Your task to perform on an android device: Open settings Image 0: 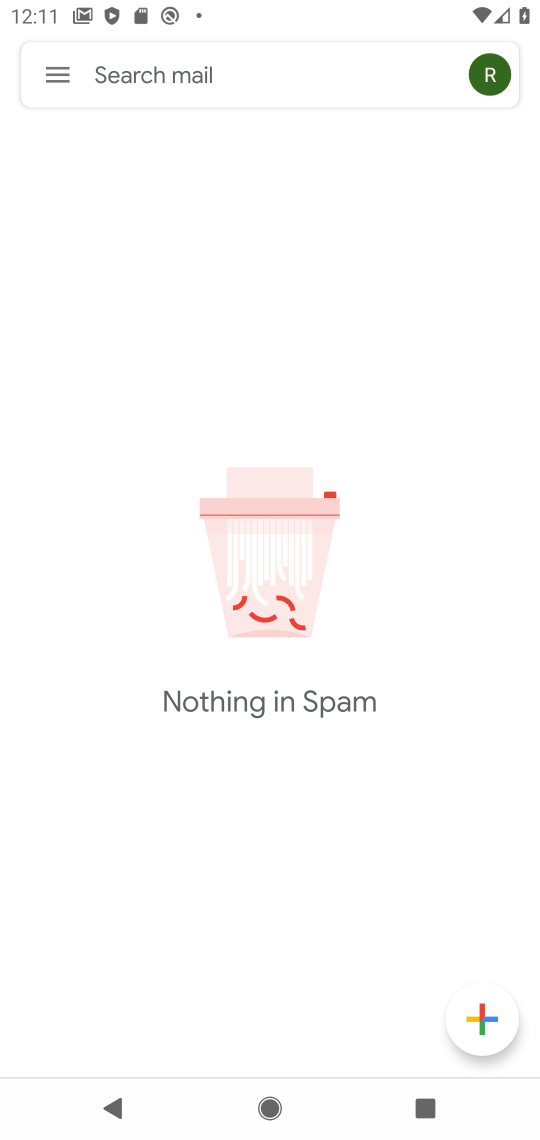
Step 0: press home button
Your task to perform on an android device: Open settings Image 1: 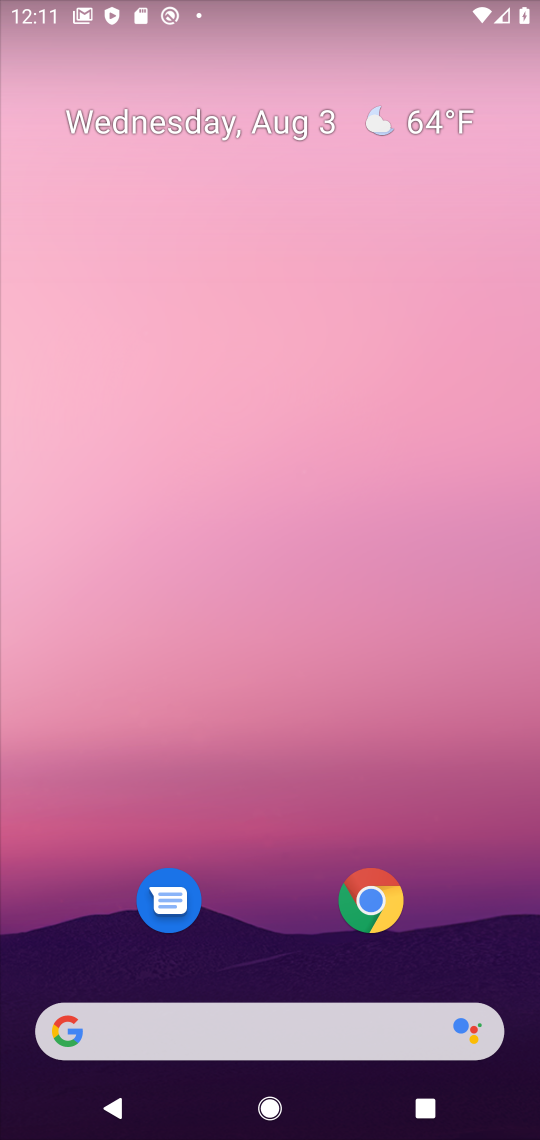
Step 1: drag from (367, 341) to (32, 21)
Your task to perform on an android device: Open settings Image 2: 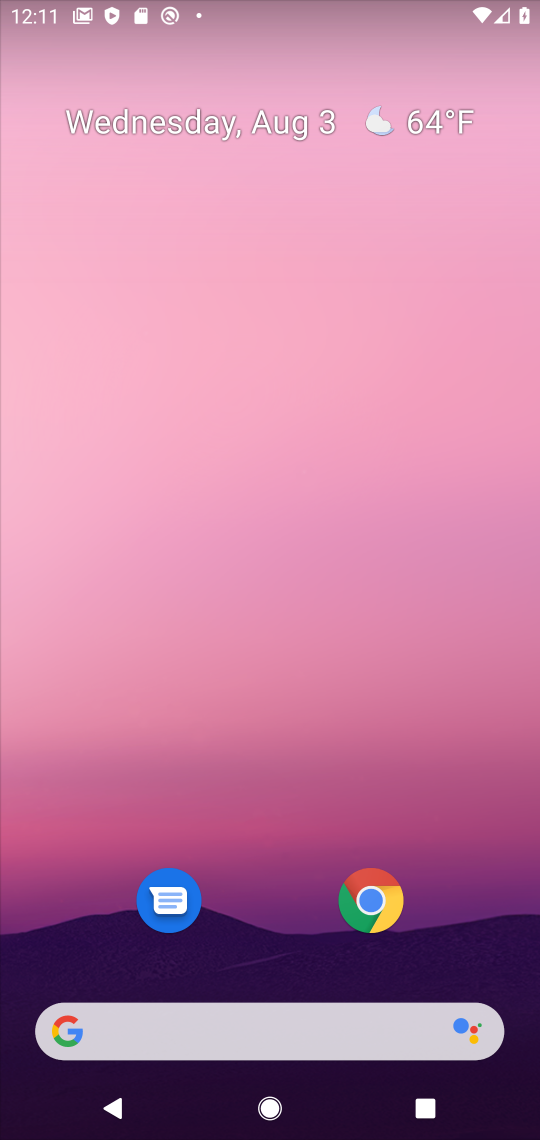
Step 2: drag from (322, 473) to (350, 36)
Your task to perform on an android device: Open settings Image 3: 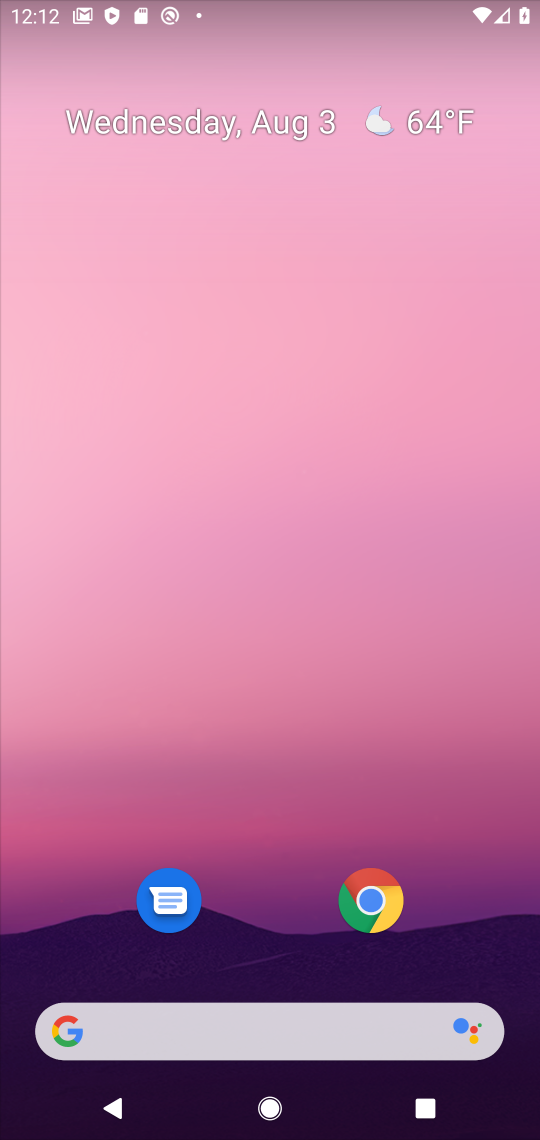
Step 3: drag from (287, 661) to (324, 10)
Your task to perform on an android device: Open settings Image 4: 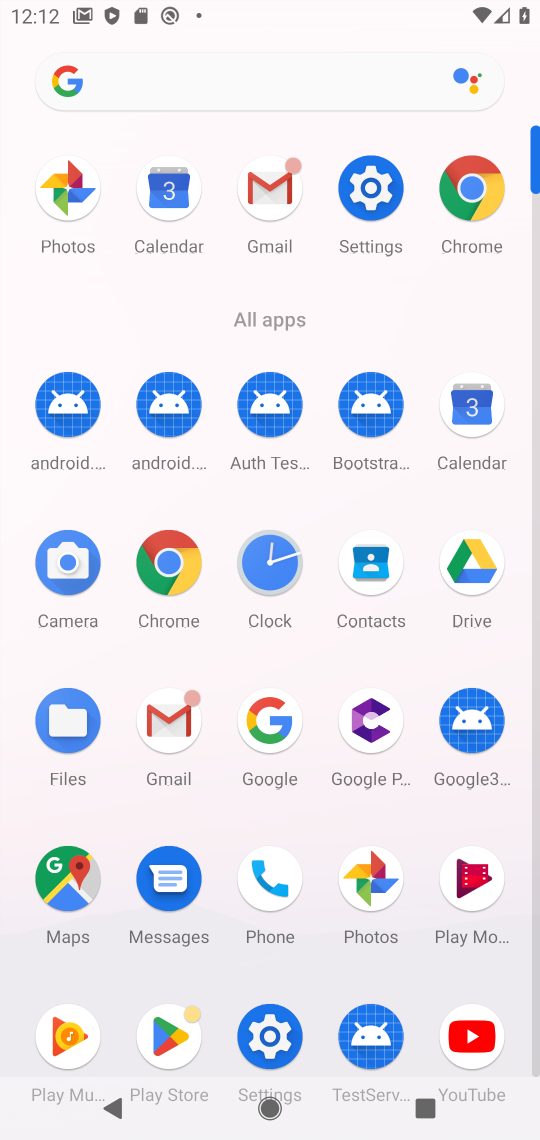
Step 4: click (360, 187)
Your task to perform on an android device: Open settings Image 5: 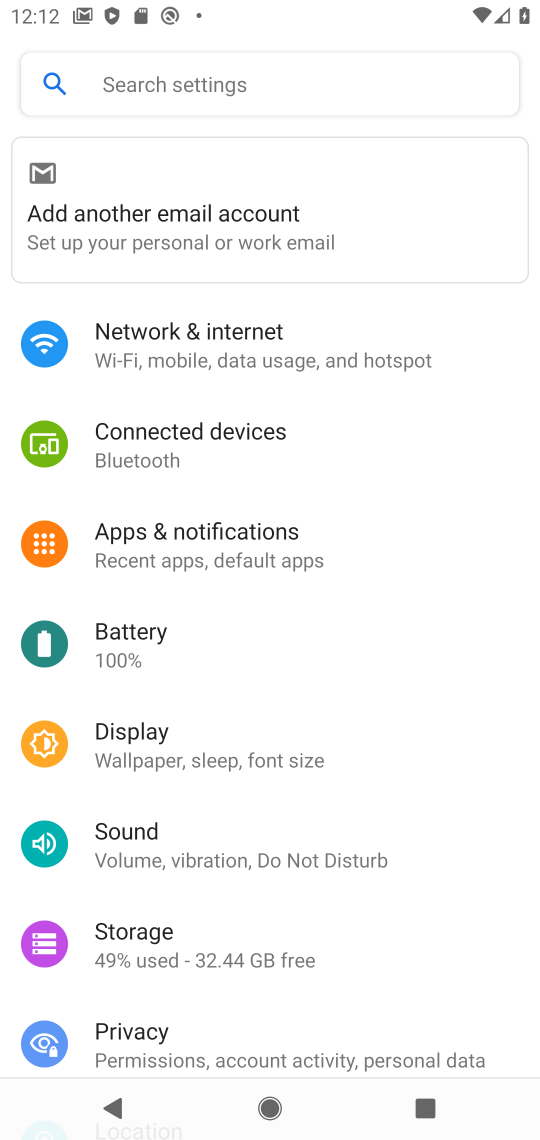
Step 5: task complete